Your task to perform on an android device: Go to ESPN.com Image 0: 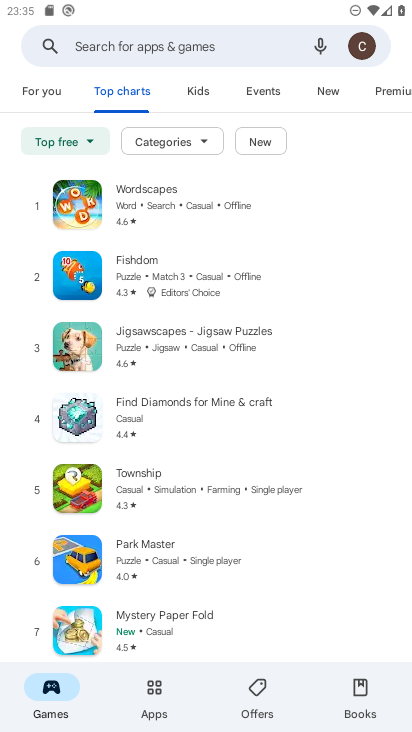
Step 0: press home button
Your task to perform on an android device: Go to ESPN.com Image 1: 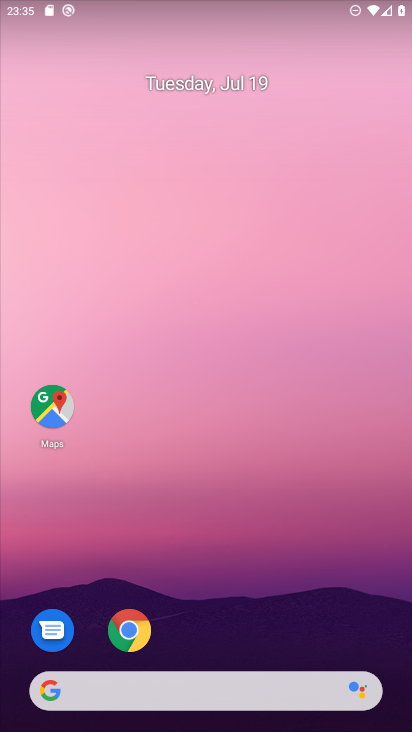
Step 1: click (119, 640)
Your task to perform on an android device: Go to ESPN.com Image 2: 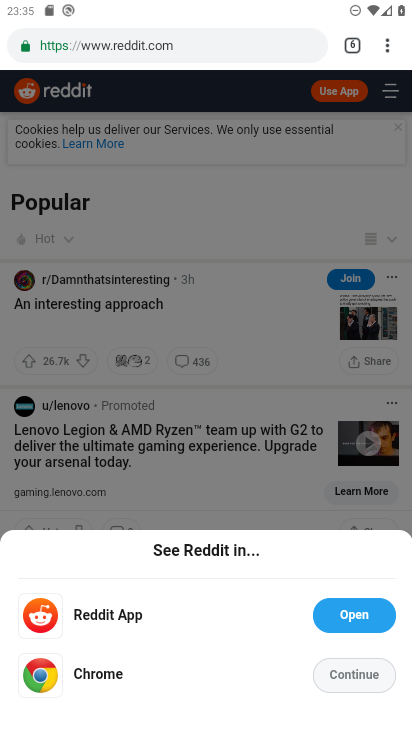
Step 2: click (348, 40)
Your task to perform on an android device: Go to ESPN.com Image 3: 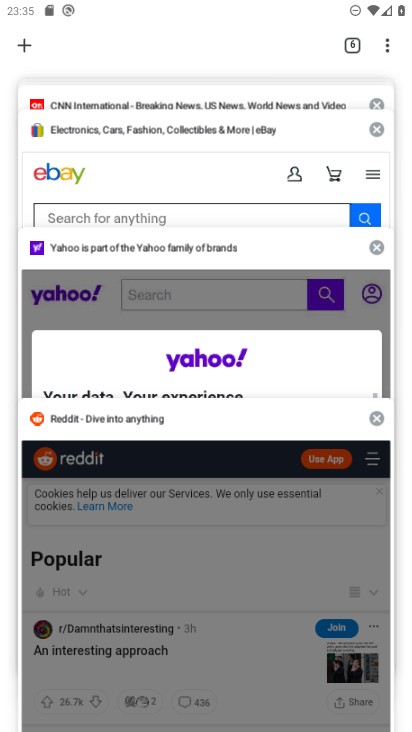
Step 3: click (19, 44)
Your task to perform on an android device: Go to ESPN.com Image 4: 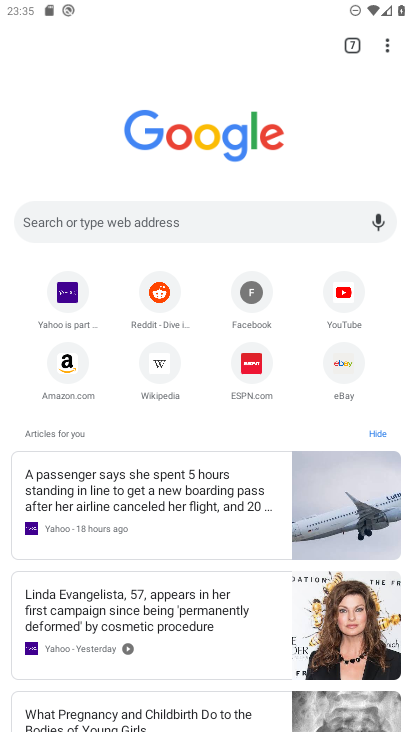
Step 4: click (238, 361)
Your task to perform on an android device: Go to ESPN.com Image 5: 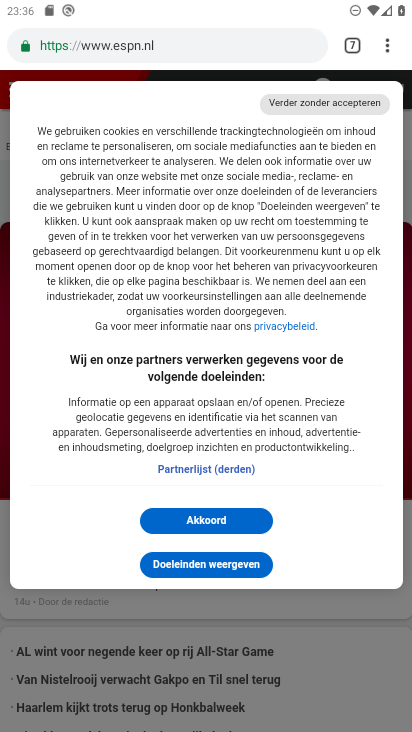
Step 5: task complete